Your task to perform on an android device: Open network settings Image 0: 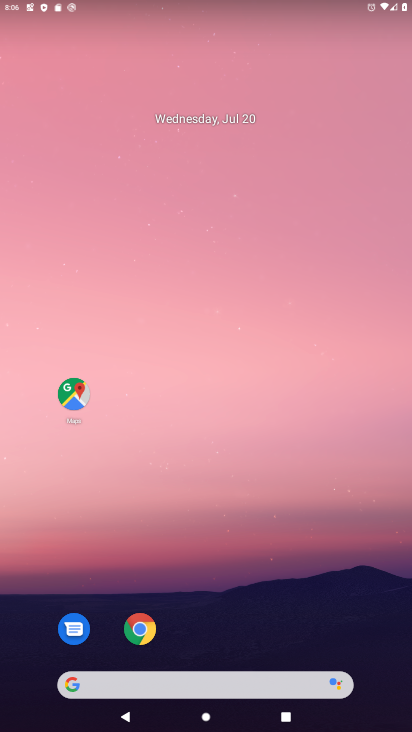
Step 0: drag from (194, 527) to (226, 232)
Your task to perform on an android device: Open network settings Image 1: 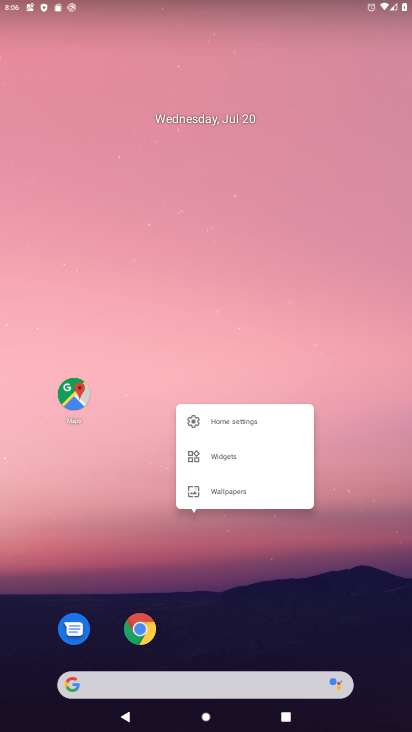
Step 1: click (196, 606)
Your task to perform on an android device: Open network settings Image 2: 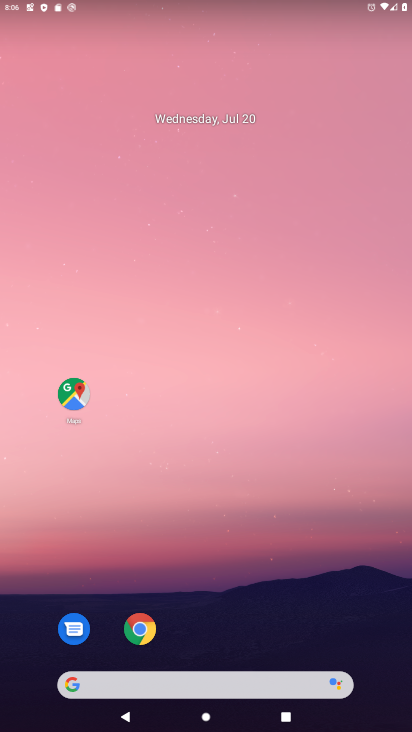
Step 2: drag from (196, 548) to (204, 232)
Your task to perform on an android device: Open network settings Image 3: 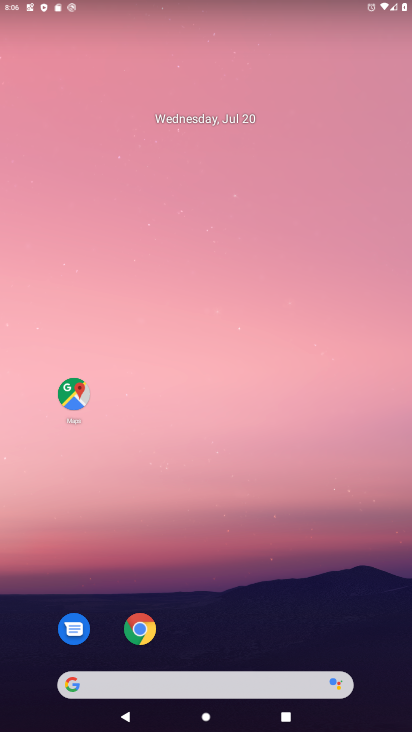
Step 3: drag from (204, 639) to (172, 60)
Your task to perform on an android device: Open network settings Image 4: 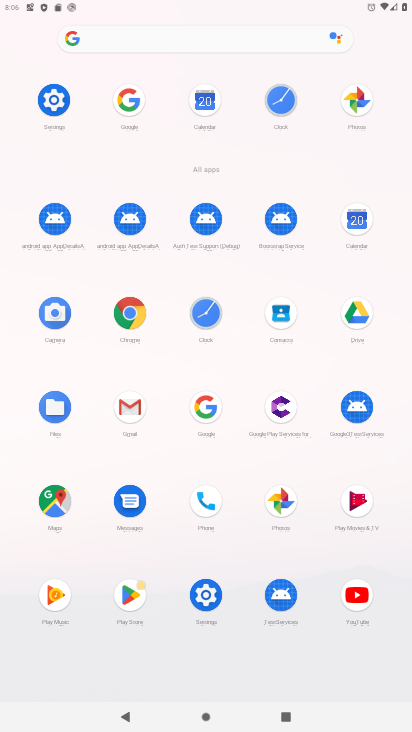
Step 4: click (212, 600)
Your task to perform on an android device: Open network settings Image 5: 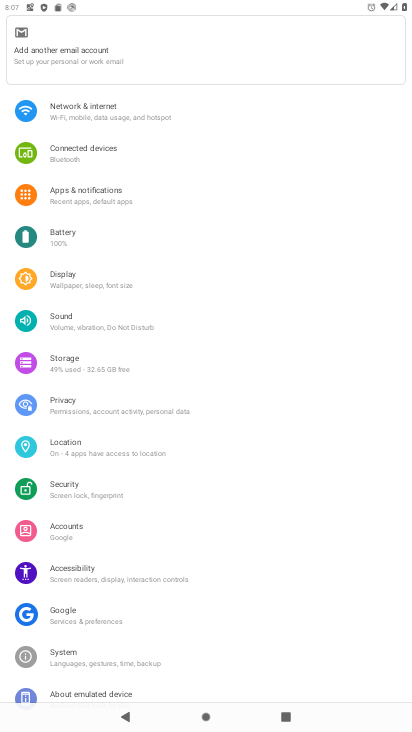
Step 5: click (112, 101)
Your task to perform on an android device: Open network settings Image 6: 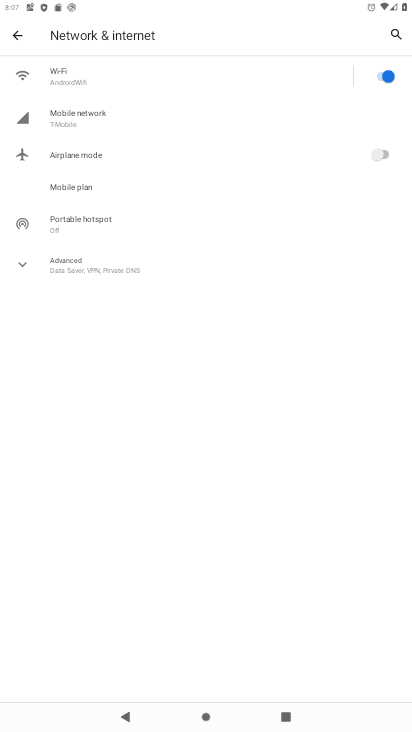
Step 6: task complete